Your task to perform on an android device: Open ESPN.com Image 0: 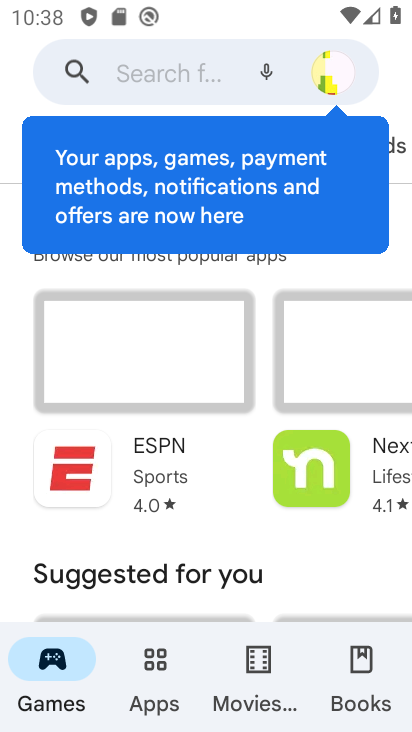
Step 0: press home button
Your task to perform on an android device: Open ESPN.com Image 1: 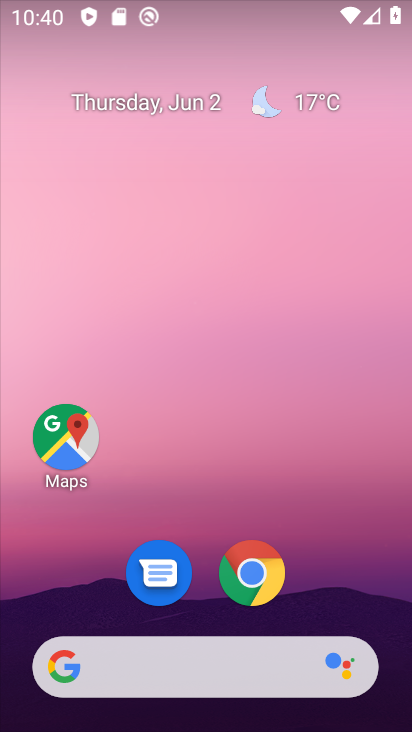
Step 1: task complete